Your task to perform on an android device: Add "jbl flip 4" to the cart on target.com, then select checkout. Image 0: 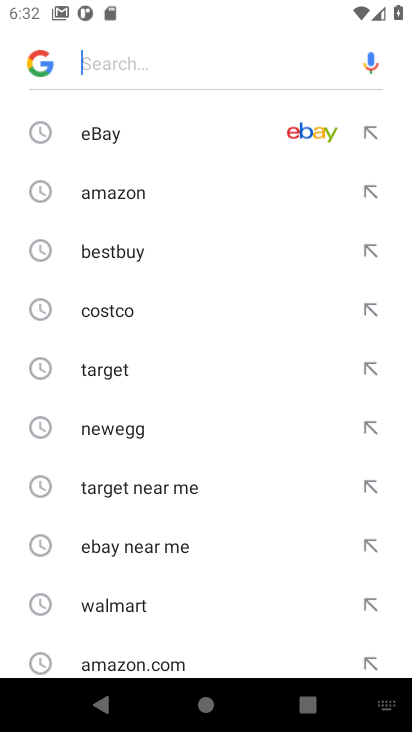
Step 0: type "target.com"
Your task to perform on an android device: Add "jbl flip 4" to the cart on target.com, then select checkout. Image 1: 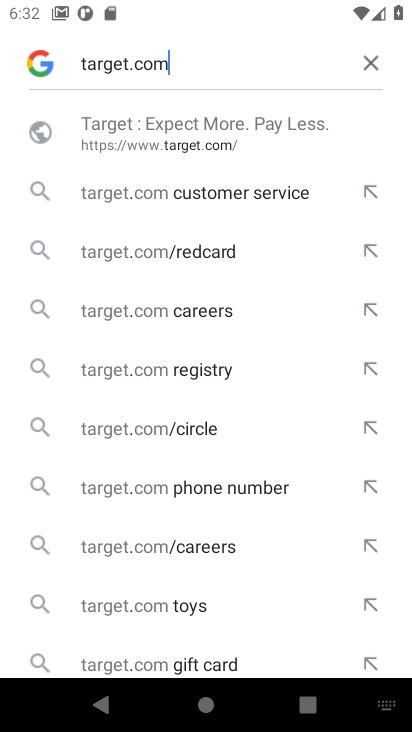
Step 1: click (118, 145)
Your task to perform on an android device: Add "jbl flip 4" to the cart on target.com, then select checkout. Image 2: 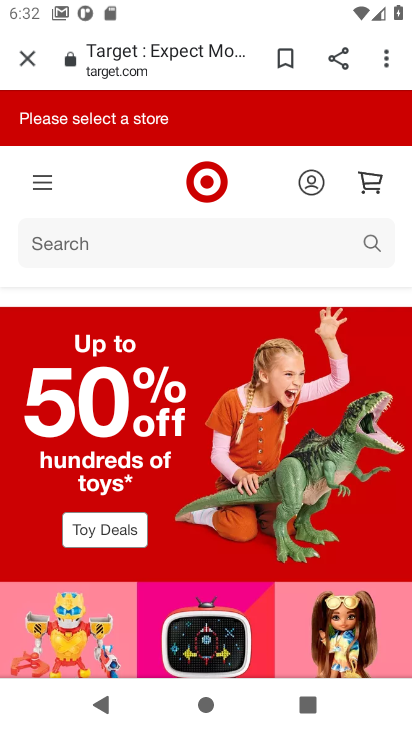
Step 2: click (59, 243)
Your task to perform on an android device: Add "jbl flip 4" to the cart on target.com, then select checkout. Image 3: 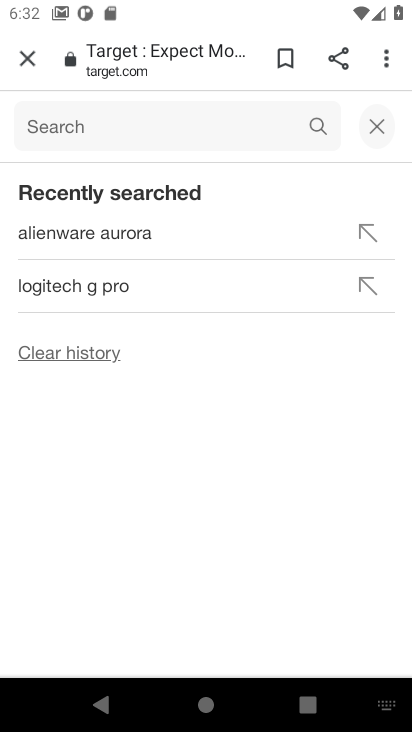
Step 3: type "jbl flip 4"
Your task to perform on an android device: Add "jbl flip 4" to the cart on target.com, then select checkout. Image 4: 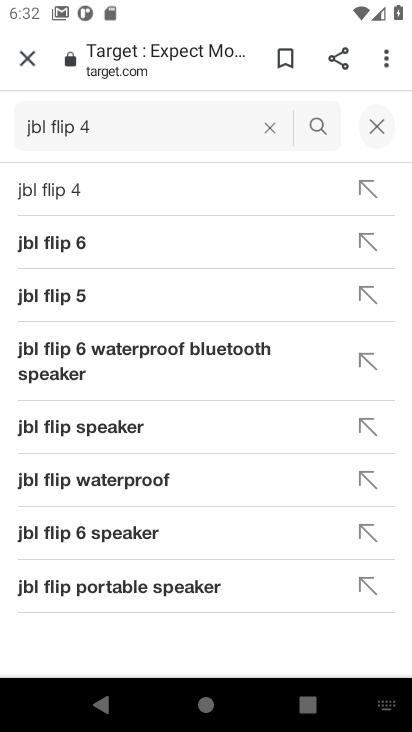
Step 4: click (42, 197)
Your task to perform on an android device: Add "jbl flip 4" to the cart on target.com, then select checkout. Image 5: 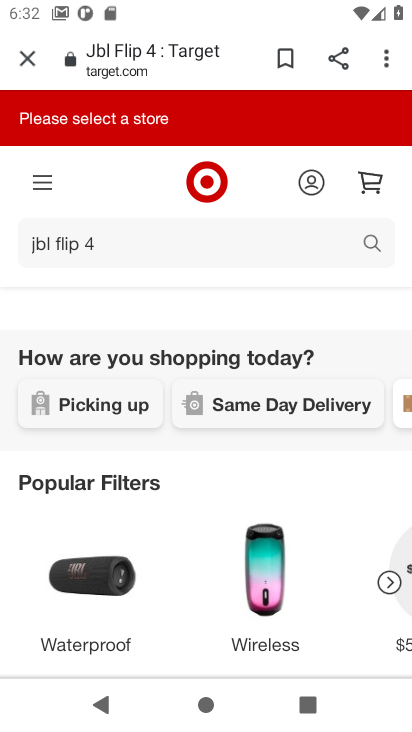
Step 5: task complete